Your task to perform on an android device: toggle notification dots Image 0: 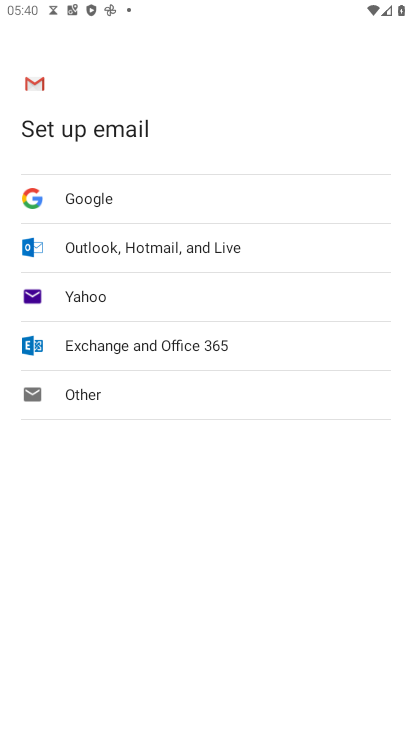
Step 0: press home button
Your task to perform on an android device: toggle notification dots Image 1: 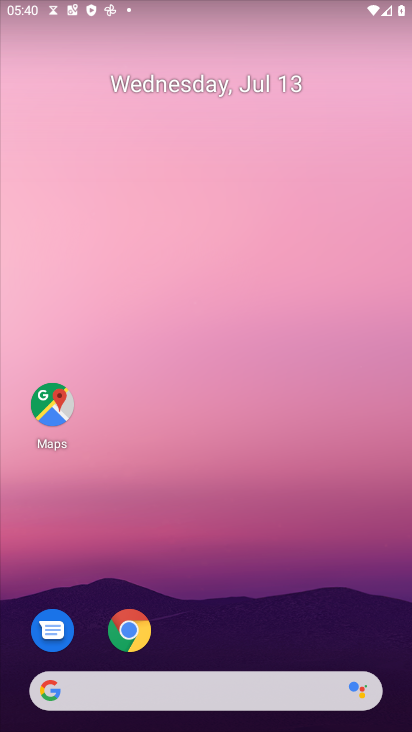
Step 1: drag from (183, 623) to (285, 103)
Your task to perform on an android device: toggle notification dots Image 2: 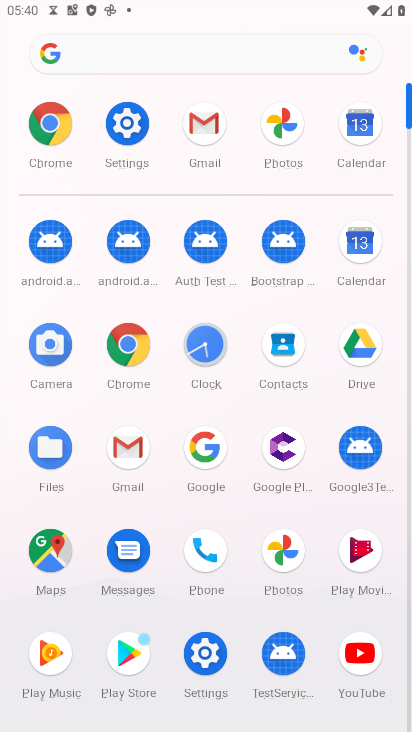
Step 2: click (134, 122)
Your task to perform on an android device: toggle notification dots Image 3: 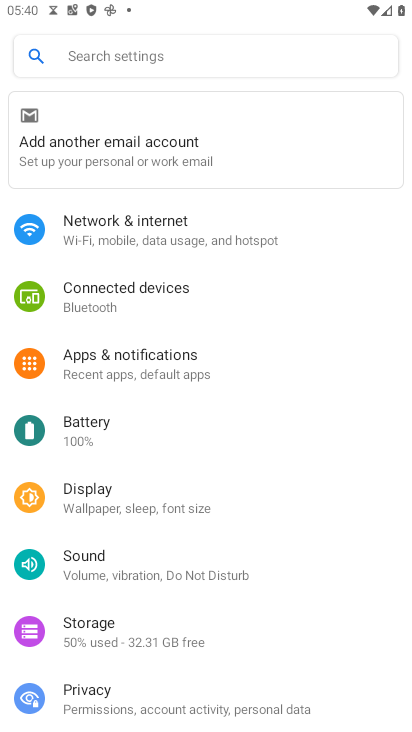
Step 3: click (146, 364)
Your task to perform on an android device: toggle notification dots Image 4: 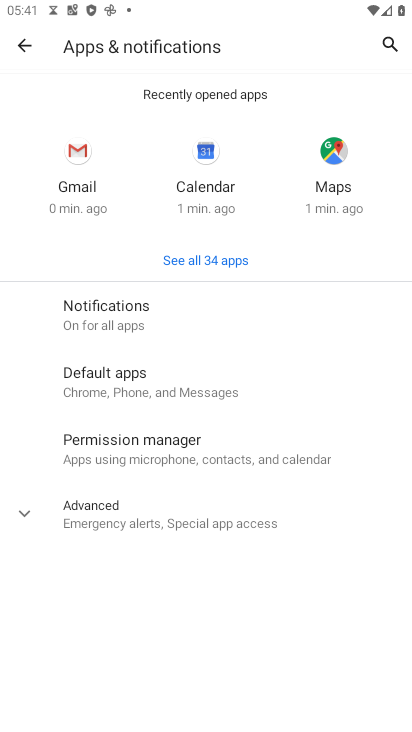
Step 4: click (149, 317)
Your task to perform on an android device: toggle notification dots Image 5: 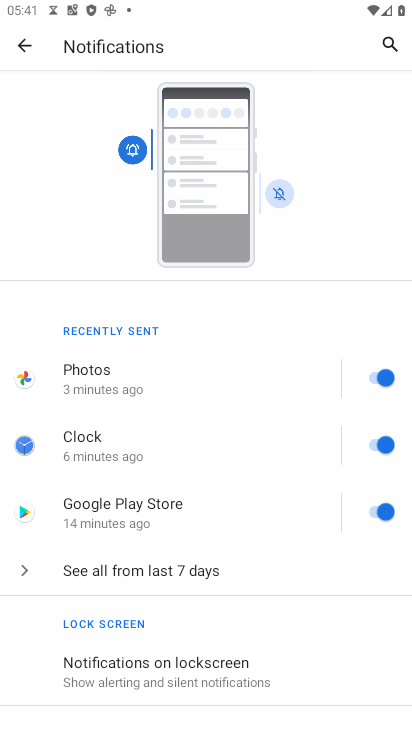
Step 5: drag from (197, 651) to (319, 176)
Your task to perform on an android device: toggle notification dots Image 6: 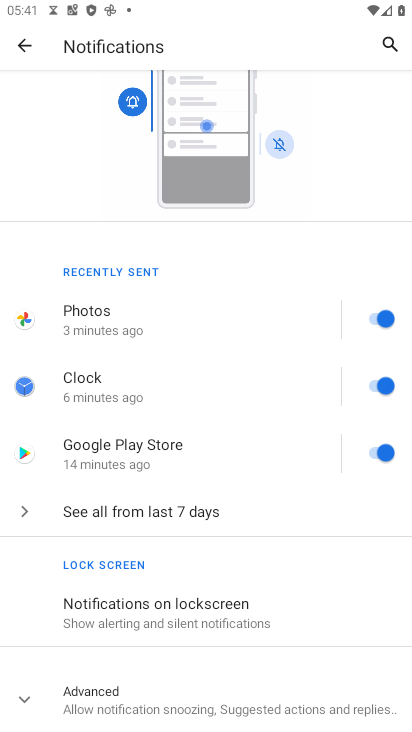
Step 6: click (132, 696)
Your task to perform on an android device: toggle notification dots Image 7: 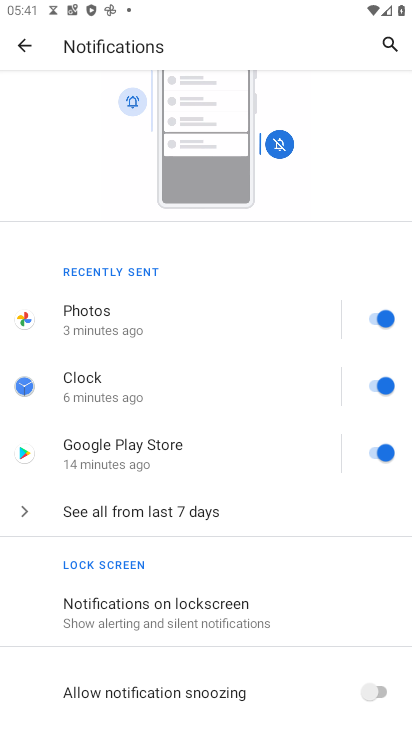
Step 7: drag from (166, 648) to (332, 193)
Your task to perform on an android device: toggle notification dots Image 8: 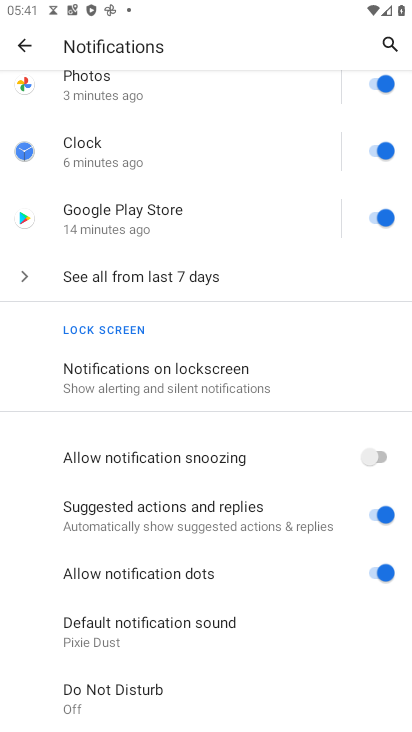
Step 8: click (366, 571)
Your task to perform on an android device: toggle notification dots Image 9: 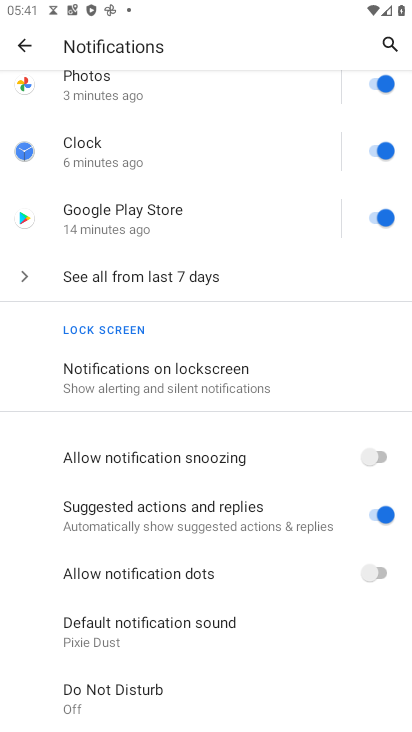
Step 9: task complete